Your task to perform on an android device: Find coffee shops on Maps Image 0: 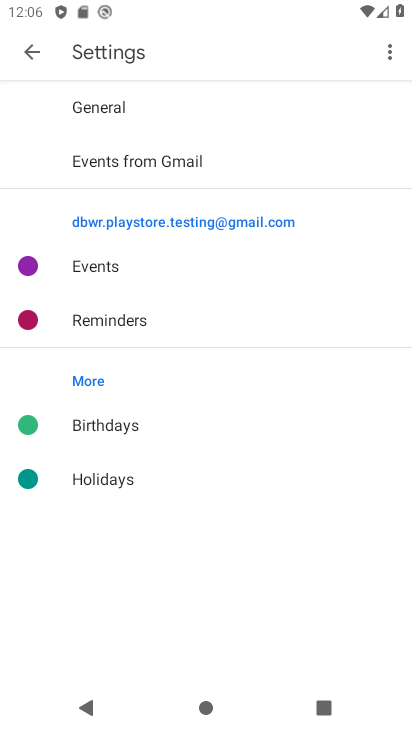
Step 0: press home button
Your task to perform on an android device: Find coffee shops on Maps Image 1: 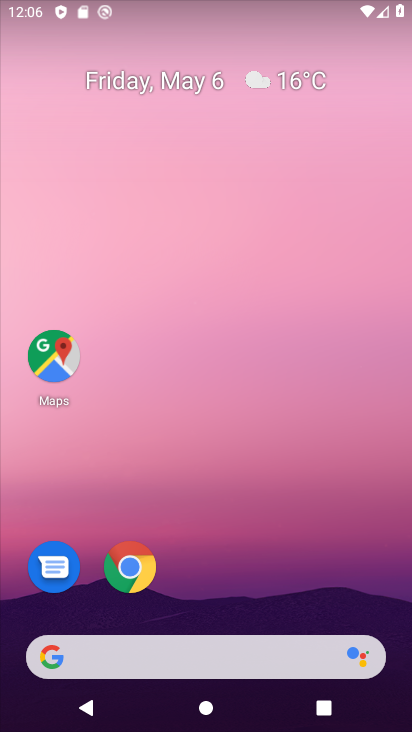
Step 1: drag from (232, 536) to (228, 121)
Your task to perform on an android device: Find coffee shops on Maps Image 2: 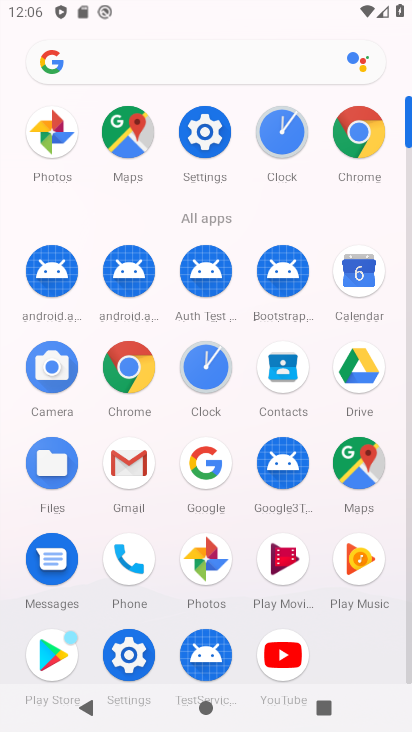
Step 2: click (123, 151)
Your task to perform on an android device: Find coffee shops on Maps Image 3: 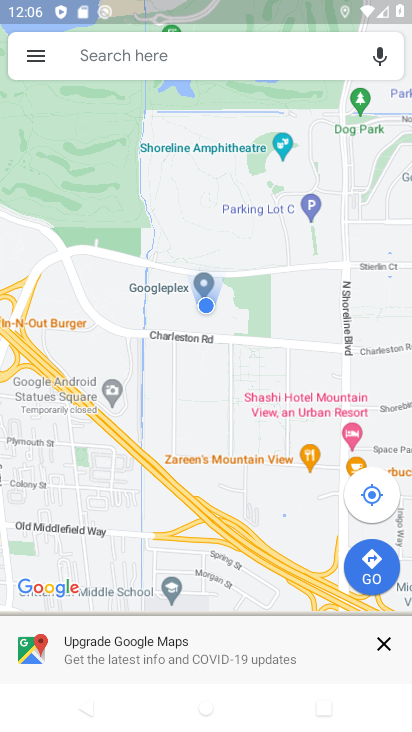
Step 3: click (190, 42)
Your task to perform on an android device: Find coffee shops on Maps Image 4: 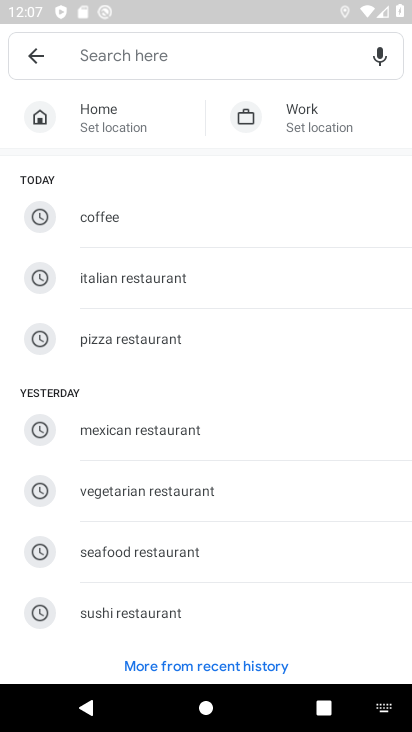
Step 4: click (94, 222)
Your task to perform on an android device: Find coffee shops on Maps Image 5: 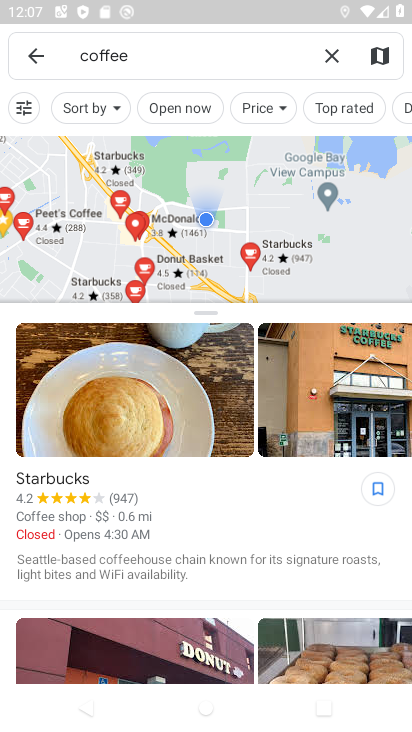
Step 5: task complete